Your task to perform on an android device: Open privacy settings Image 0: 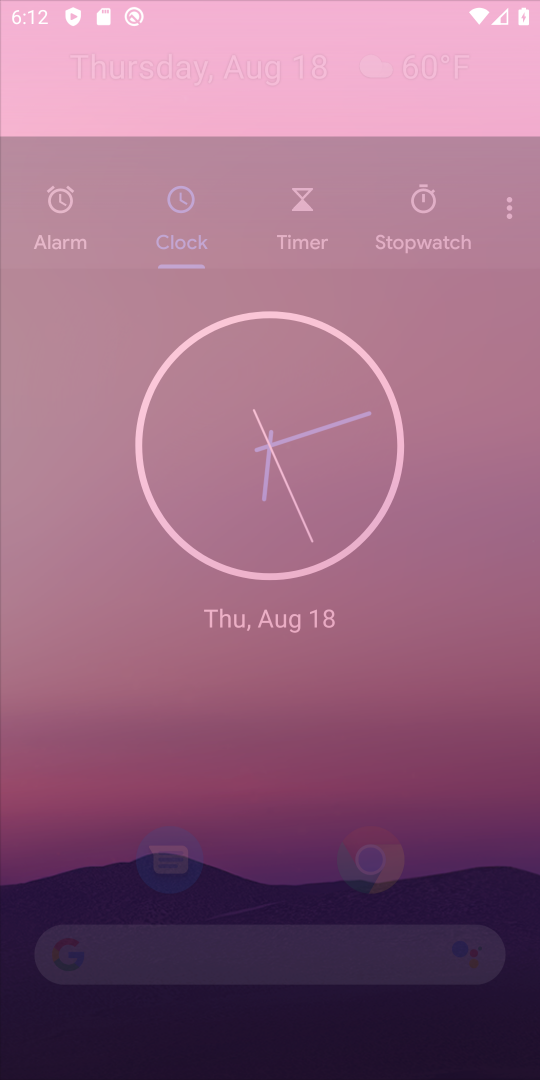
Step 0: press home button
Your task to perform on an android device: Open privacy settings Image 1: 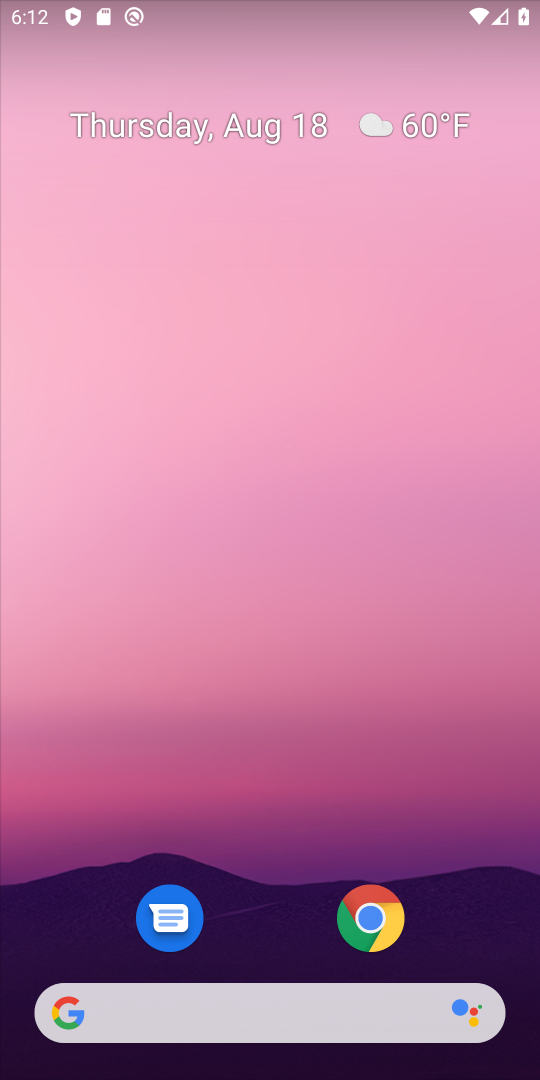
Step 1: drag from (268, 904) to (93, 54)
Your task to perform on an android device: Open privacy settings Image 2: 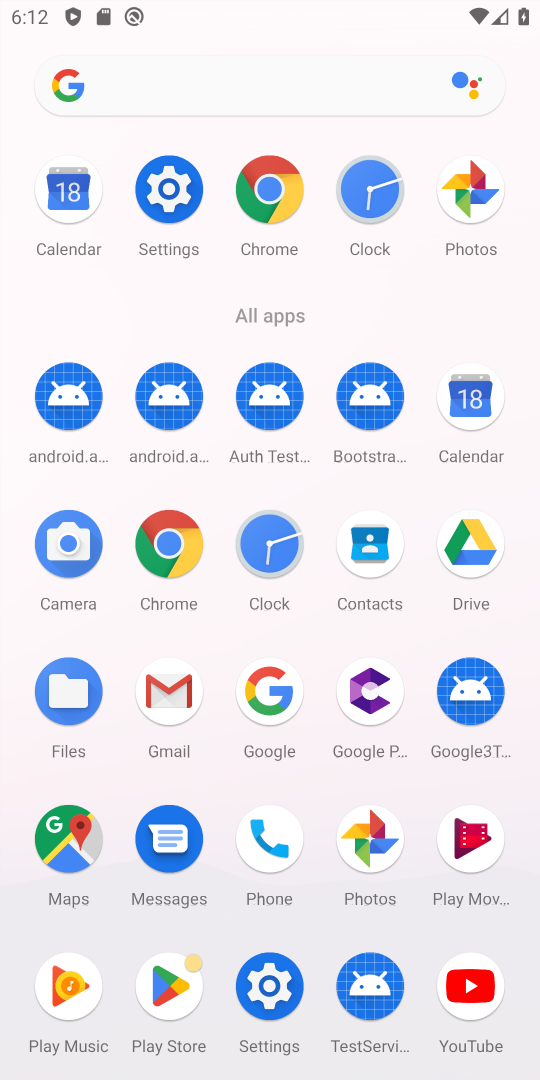
Step 2: click (159, 215)
Your task to perform on an android device: Open privacy settings Image 3: 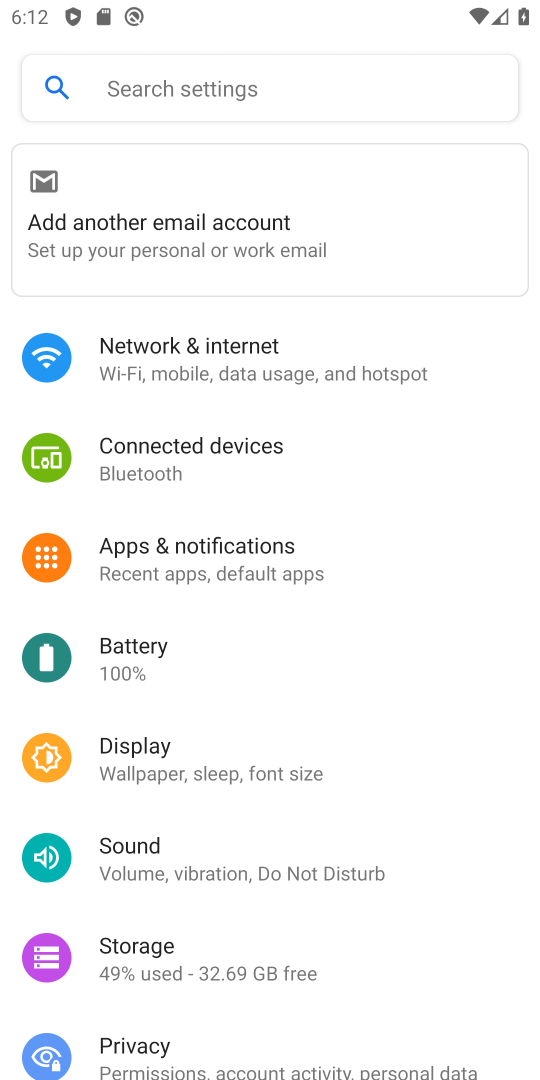
Step 3: click (148, 1051)
Your task to perform on an android device: Open privacy settings Image 4: 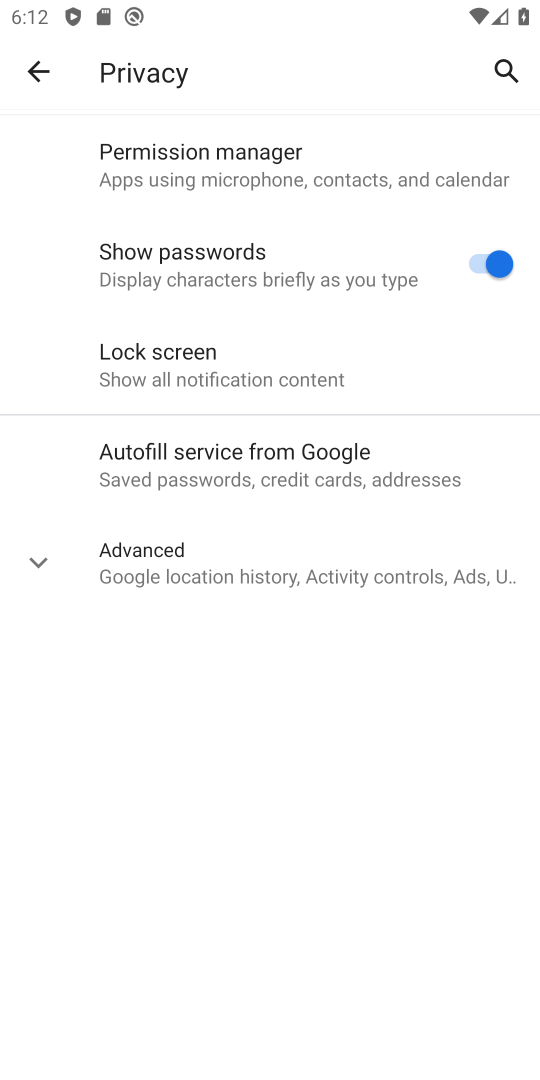
Step 4: task complete